Your task to perform on an android device: allow cookies in the chrome app Image 0: 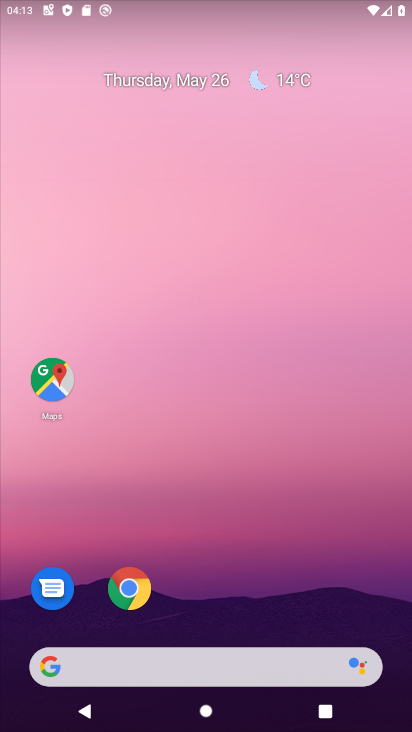
Step 0: click (139, 598)
Your task to perform on an android device: allow cookies in the chrome app Image 1: 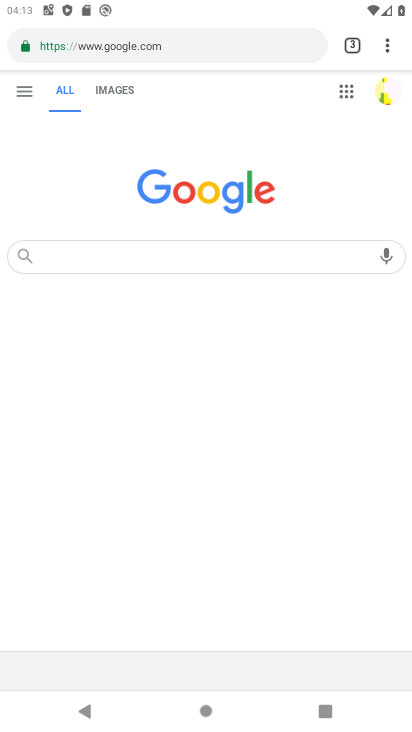
Step 1: click (392, 46)
Your task to perform on an android device: allow cookies in the chrome app Image 2: 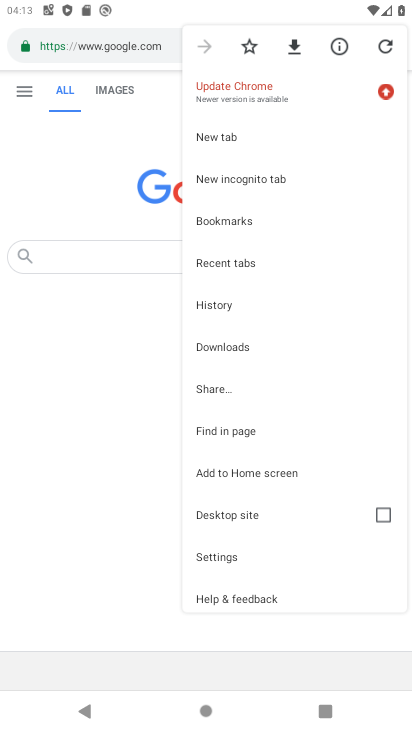
Step 2: click (238, 567)
Your task to perform on an android device: allow cookies in the chrome app Image 3: 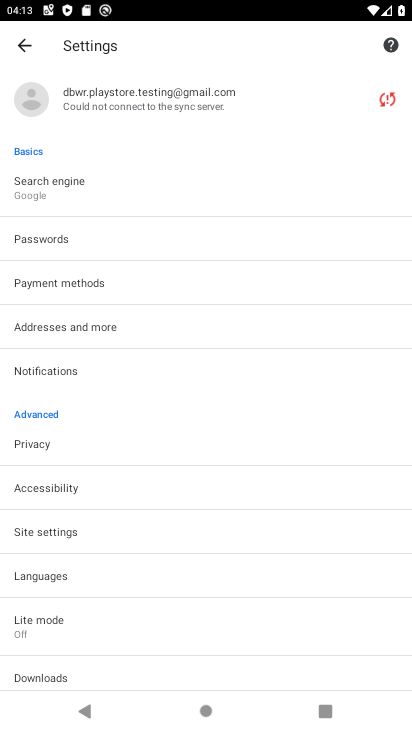
Step 3: click (157, 531)
Your task to perform on an android device: allow cookies in the chrome app Image 4: 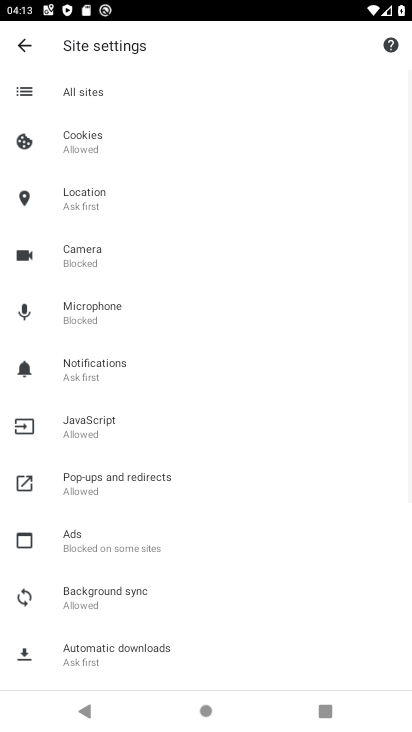
Step 4: click (150, 120)
Your task to perform on an android device: allow cookies in the chrome app Image 5: 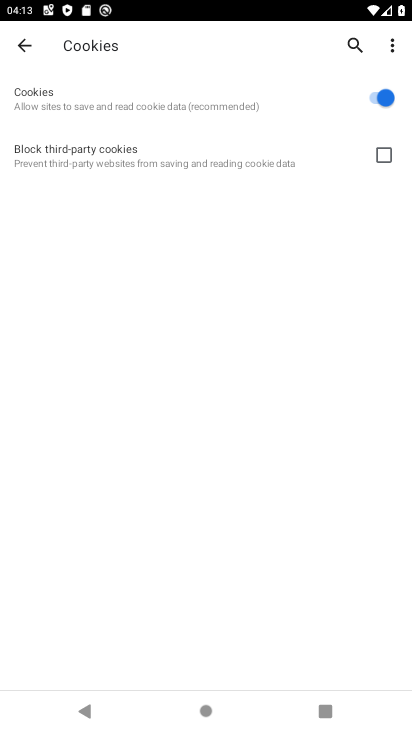
Step 5: task complete